Your task to perform on an android device: open app "Google Play Games" (install if not already installed) Image 0: 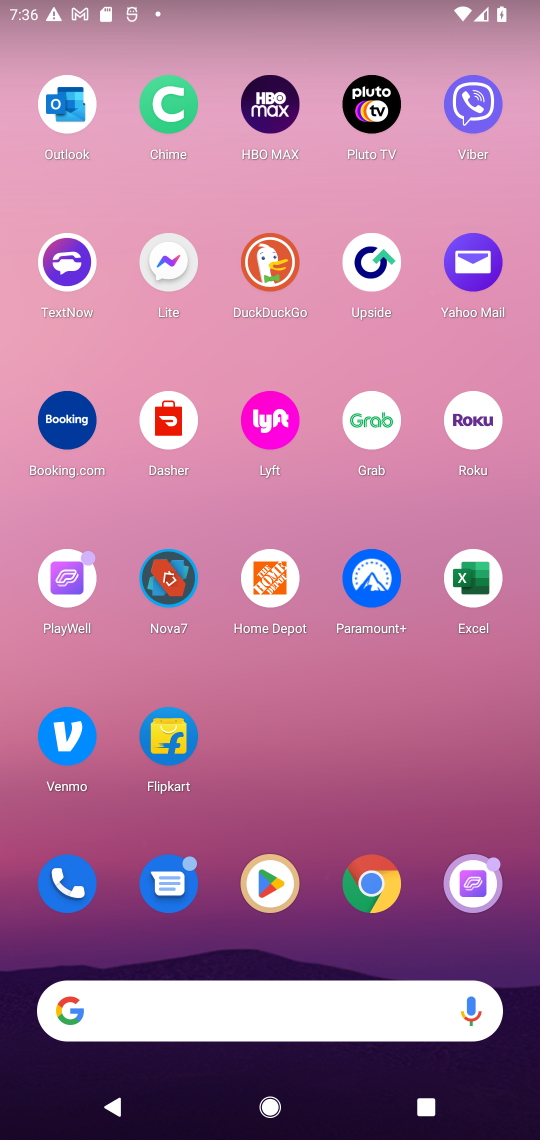
Step 0: click (289, 874)
Your task to perform on an android device: open app "Google Play Games" (install if not already installed) Image 1: 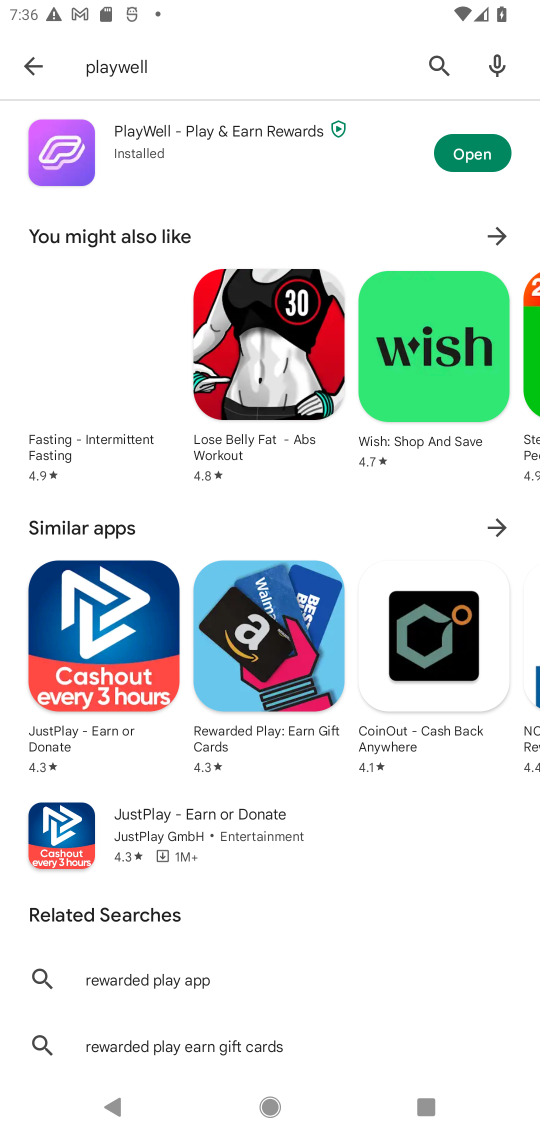
Step 1: click (442, 58)
Your task to perform on an android device: open app "Google Play Games" (install if not already installed) Image 2: 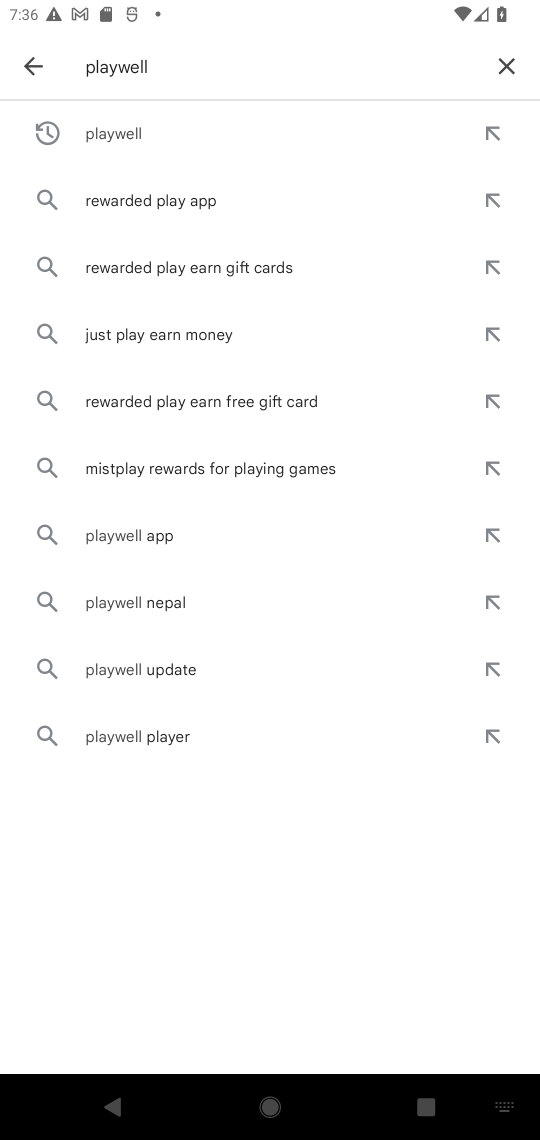
Step 2: click (497, 66)
Your task to perform on an android device: open app "Google Play Games" (install if not already installed) Image 3: 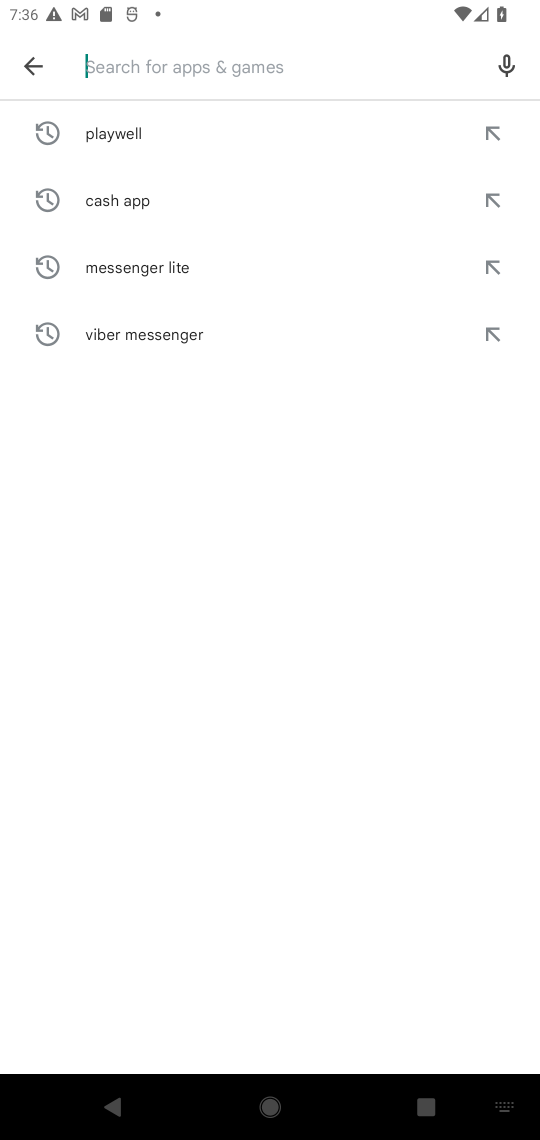
Step 3: type "Google Play Games"
Your task to perform on an android device: open app "Google Play Games" (install if not already installed) Image 4: 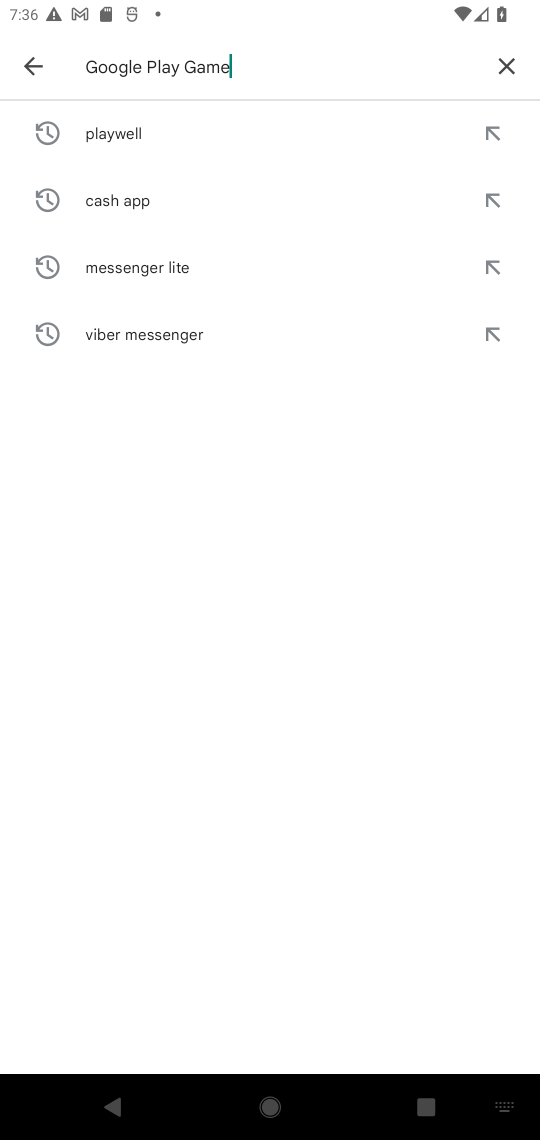
Step 4: type ""
Your task to perform on an android device: open app "Google Play Games" (install if not already installed) Image 5: 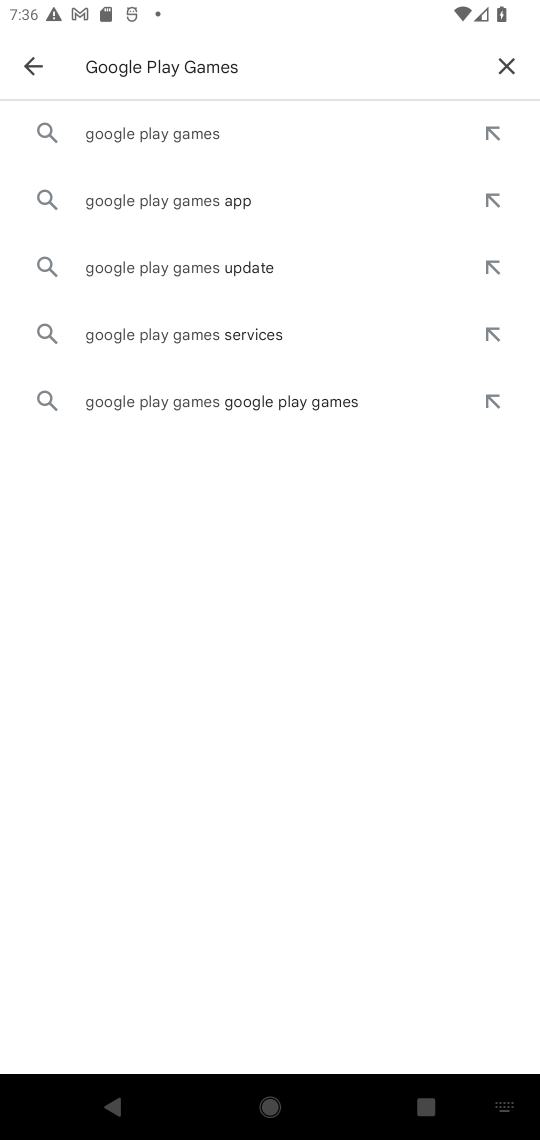
Step 5: click (188, 124)
Your task to perform on an android device: open app "Google Play Games" (install if not already installed) Image 6: 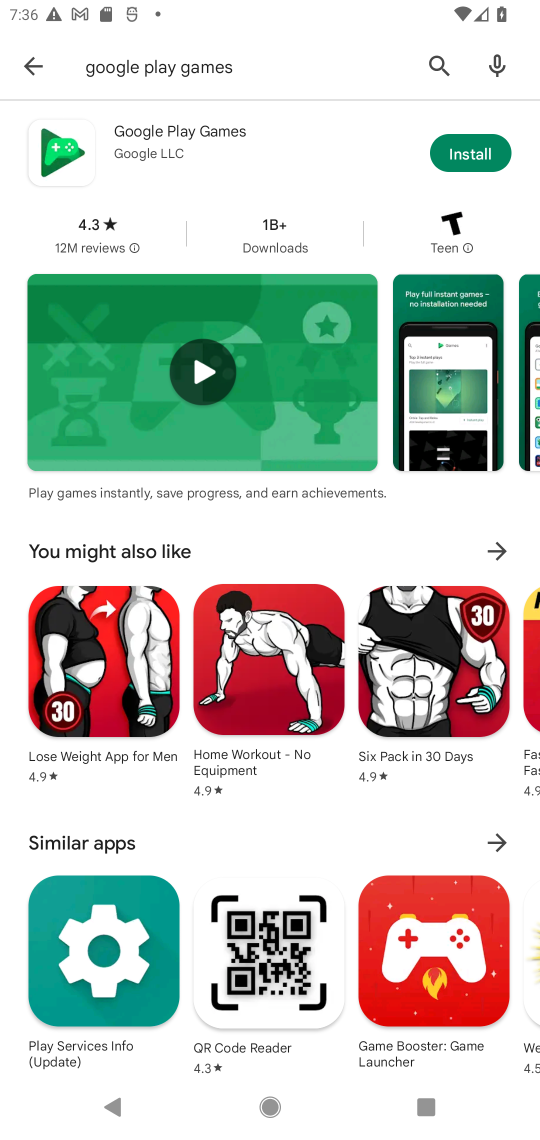
Step 6: click (451, 144)
Your task to perform on an android device: open app "Google Play Games" (install if not already installed) Image 7: 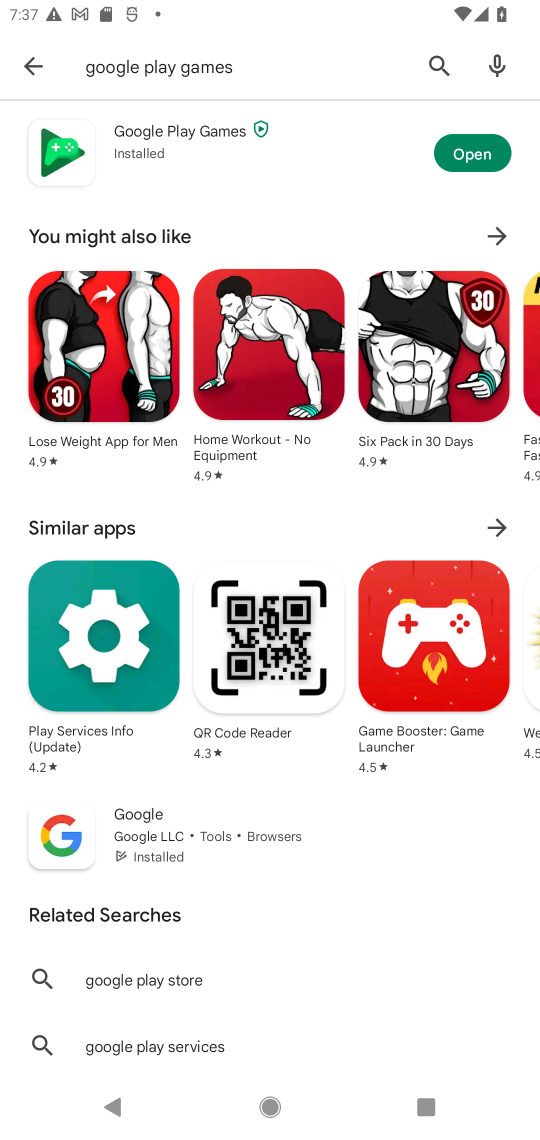
Step 7: click (481, 162)
Your task to perform on an android device: open app "Google Play Games" (install if not already installed) Image 8: 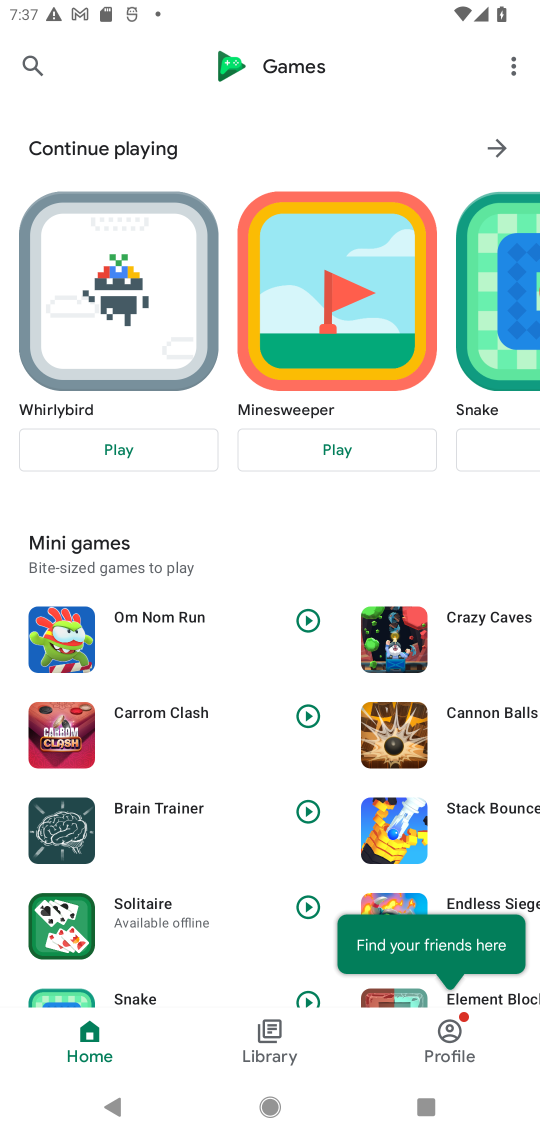
Step 8: click (41, 71)
Your task to perform on an android device: open app "Google Play Games" (install if not already installed) Image 9: 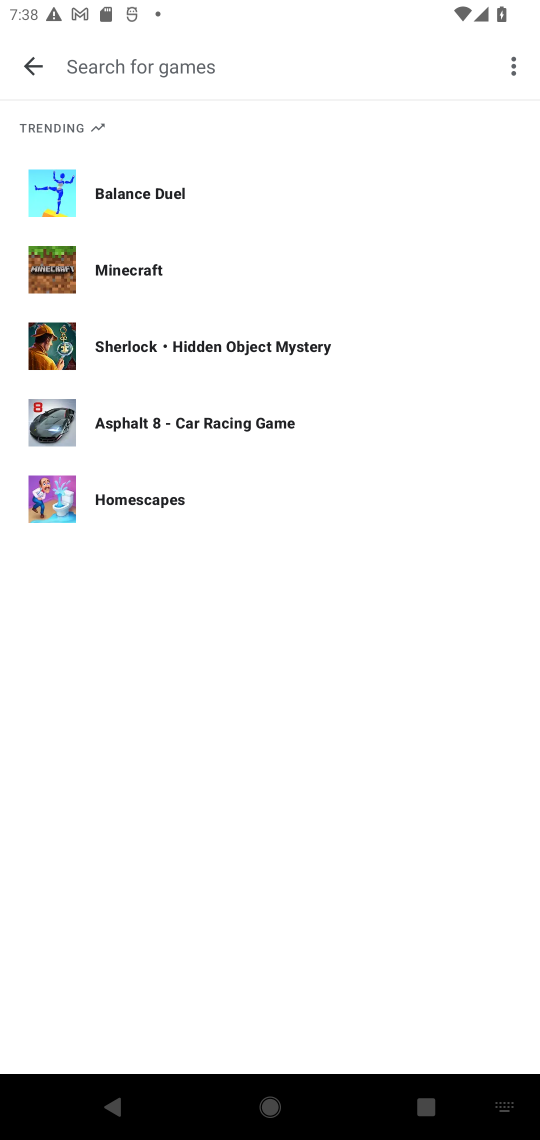
Step 9: type "Google Play Games"
Your task to perform on an android device: open app "Google Play Games" (install if not already installed) Image 10: 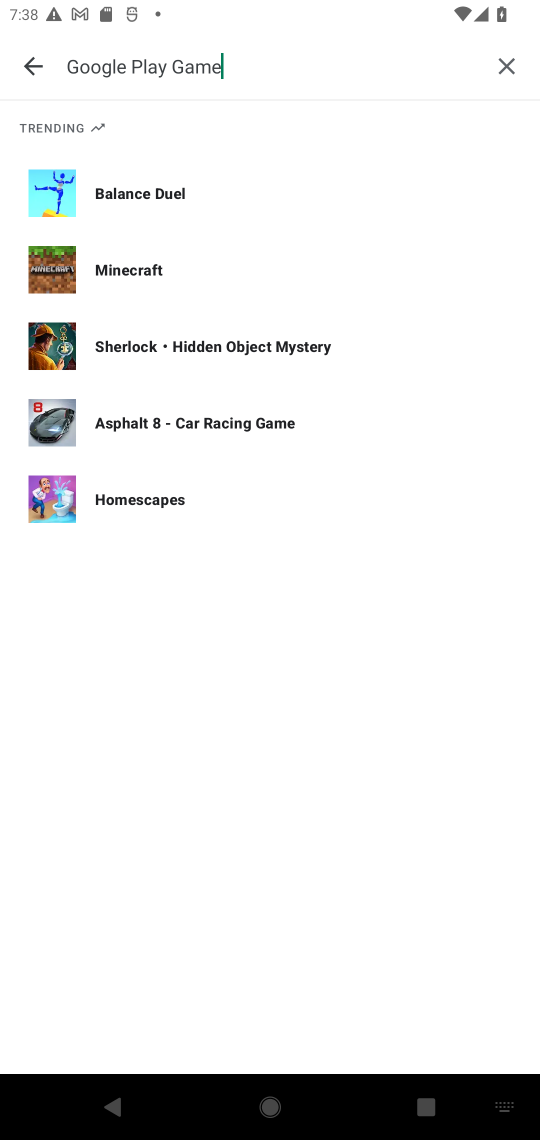
Step 10: type ""
Your task to perform on an android device: open app "Google Play Games" (install if not already installed) Image 11: 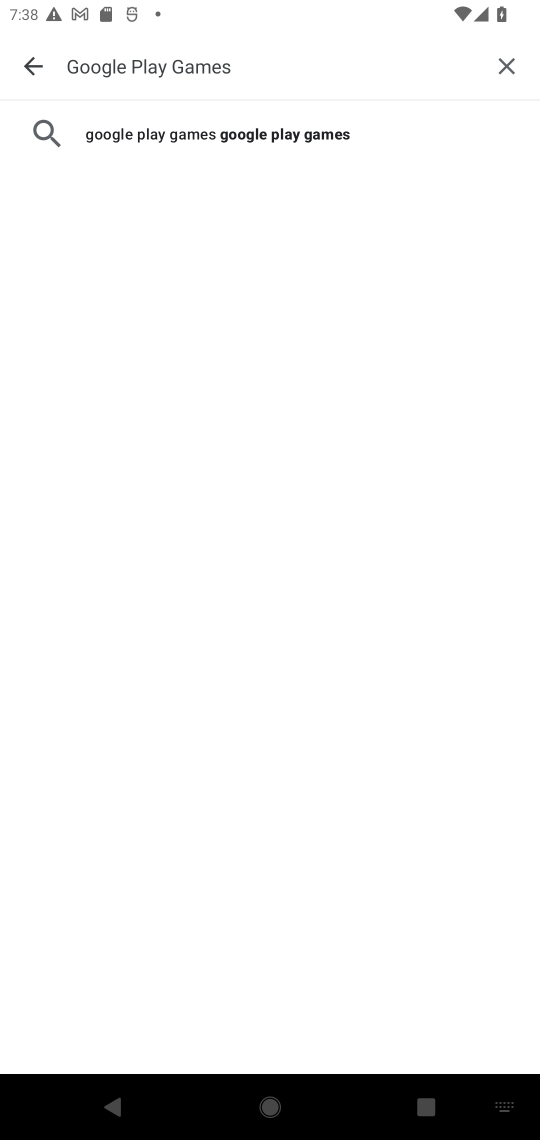
Step 11: click (201, 135)
Your task to perform on an android device: open app "Google Play Games" (install if not already installed) Image 12: 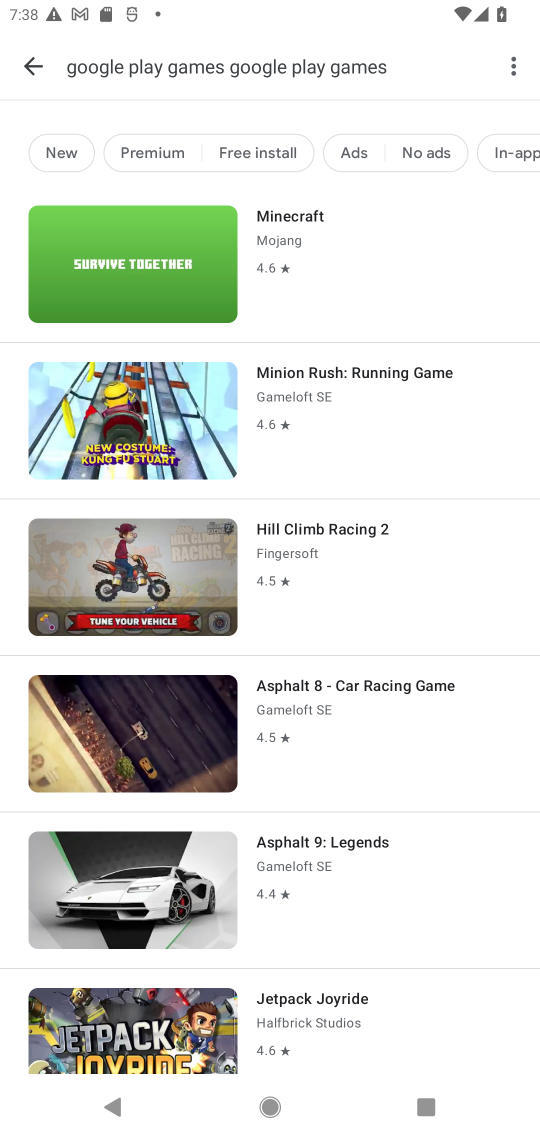
Step 12: task complete